Your task to perform on an android device: turn on sleep mode Image 0: 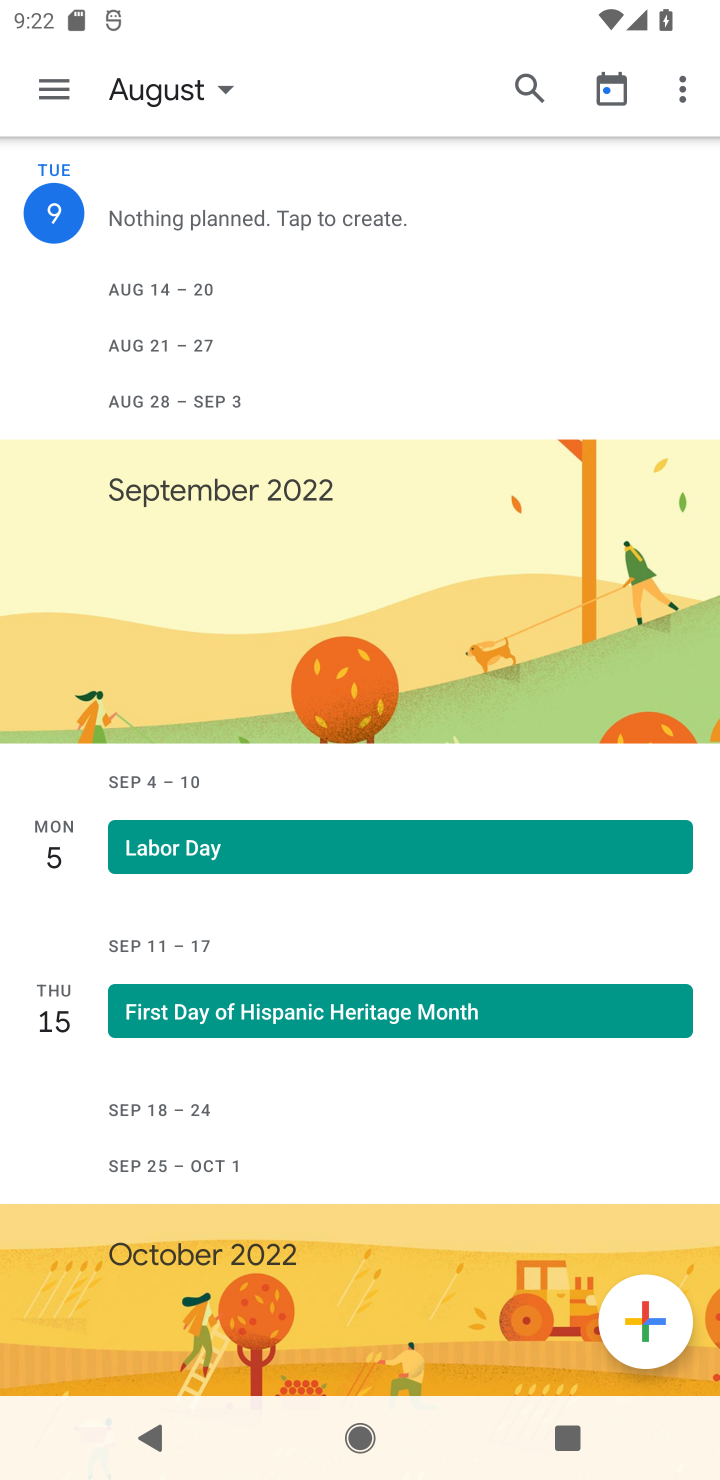
Step 0: press home button
Your task to perform on an android device: turn on sleep mode Image 1: 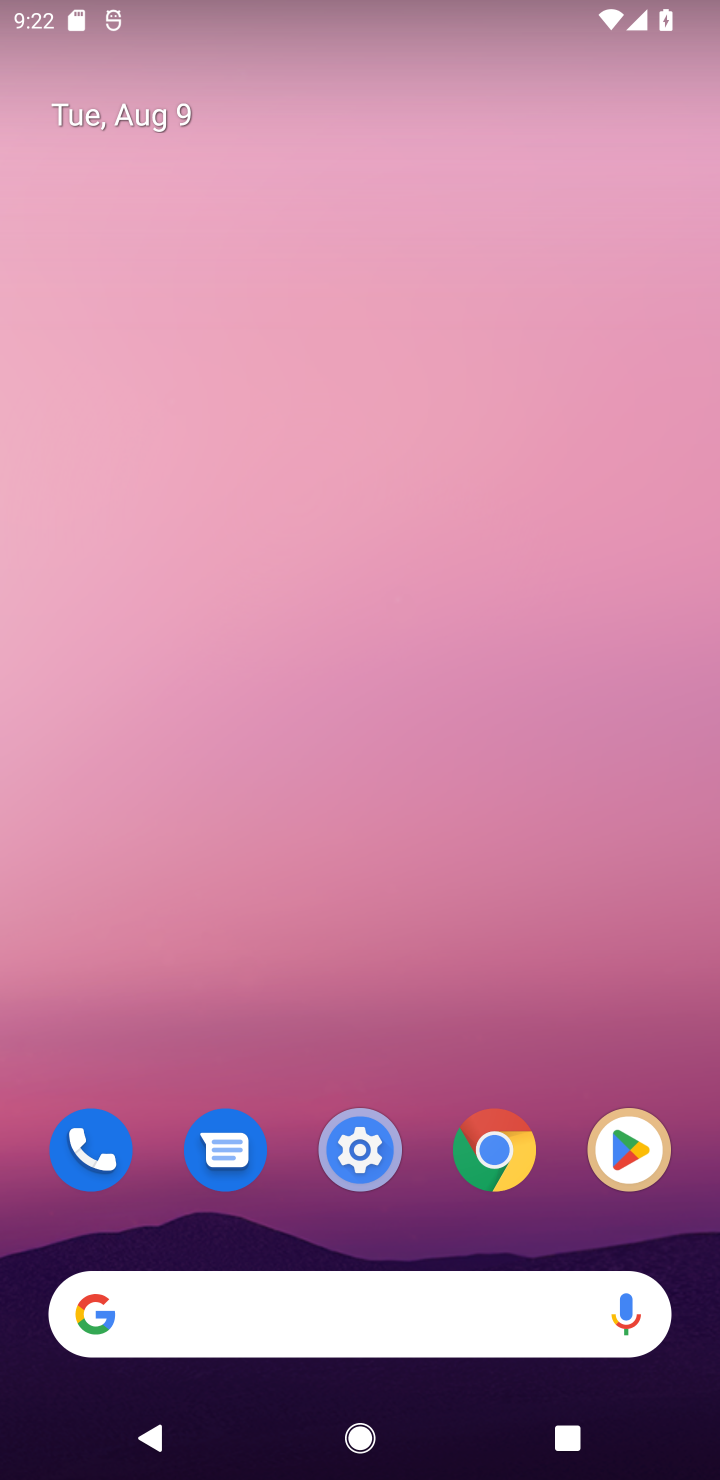
Step 1: drag from (527, 1074) to (465, 364)
Your task to perform on an android device: turn on sleep mode Image 2: 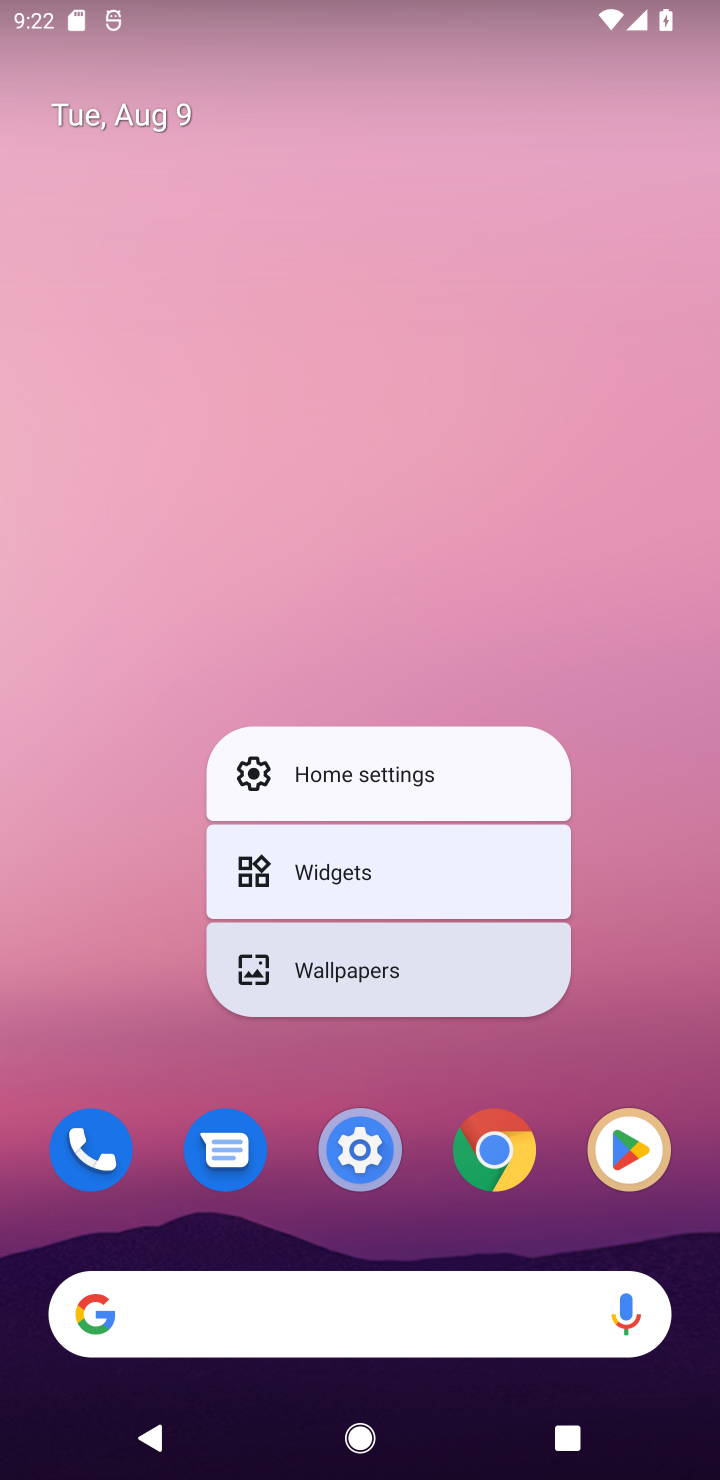
Step 2: click (705, 783)
Your task to perform on an android device: turn on sleep mode Image 3: 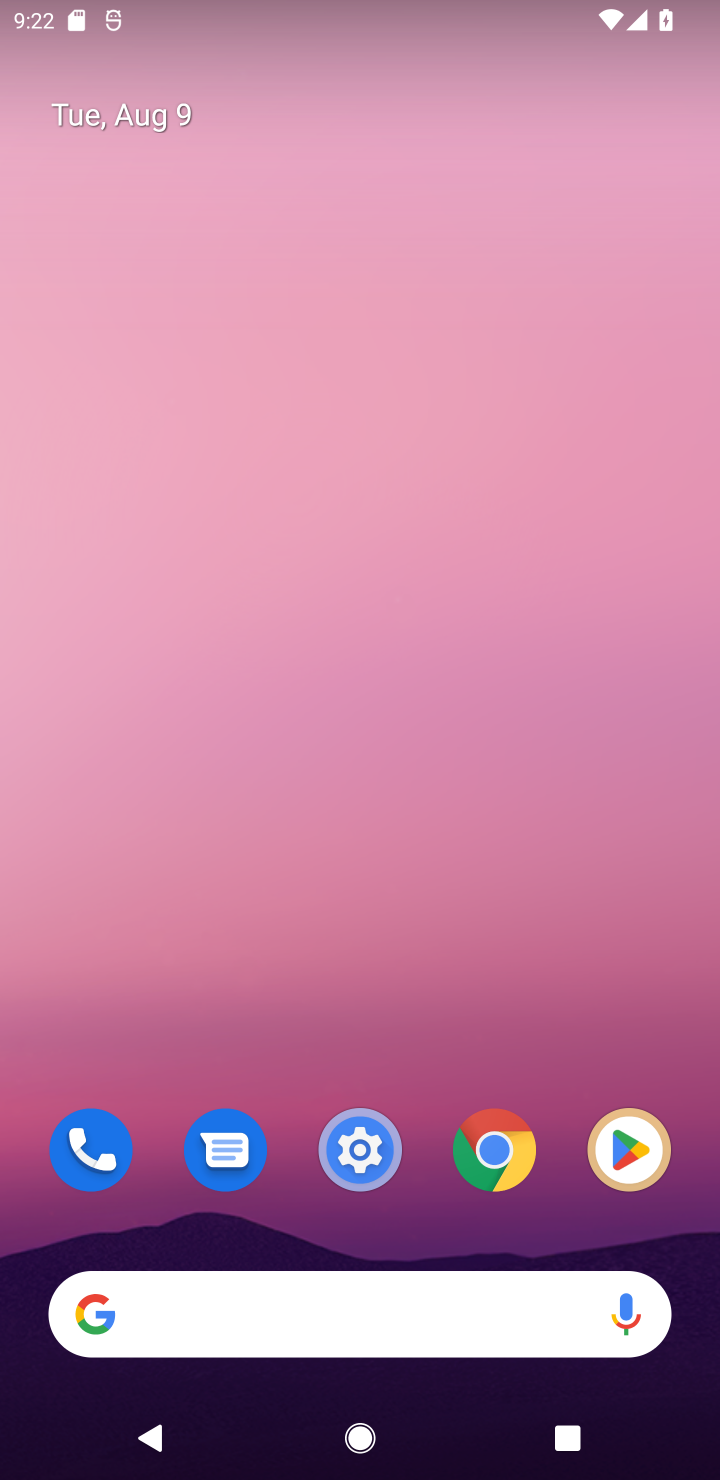
Step 3: drag from (591, 1057) to (543, 247)
Your task to perform on an android device: turn on sleep mode Image 4: 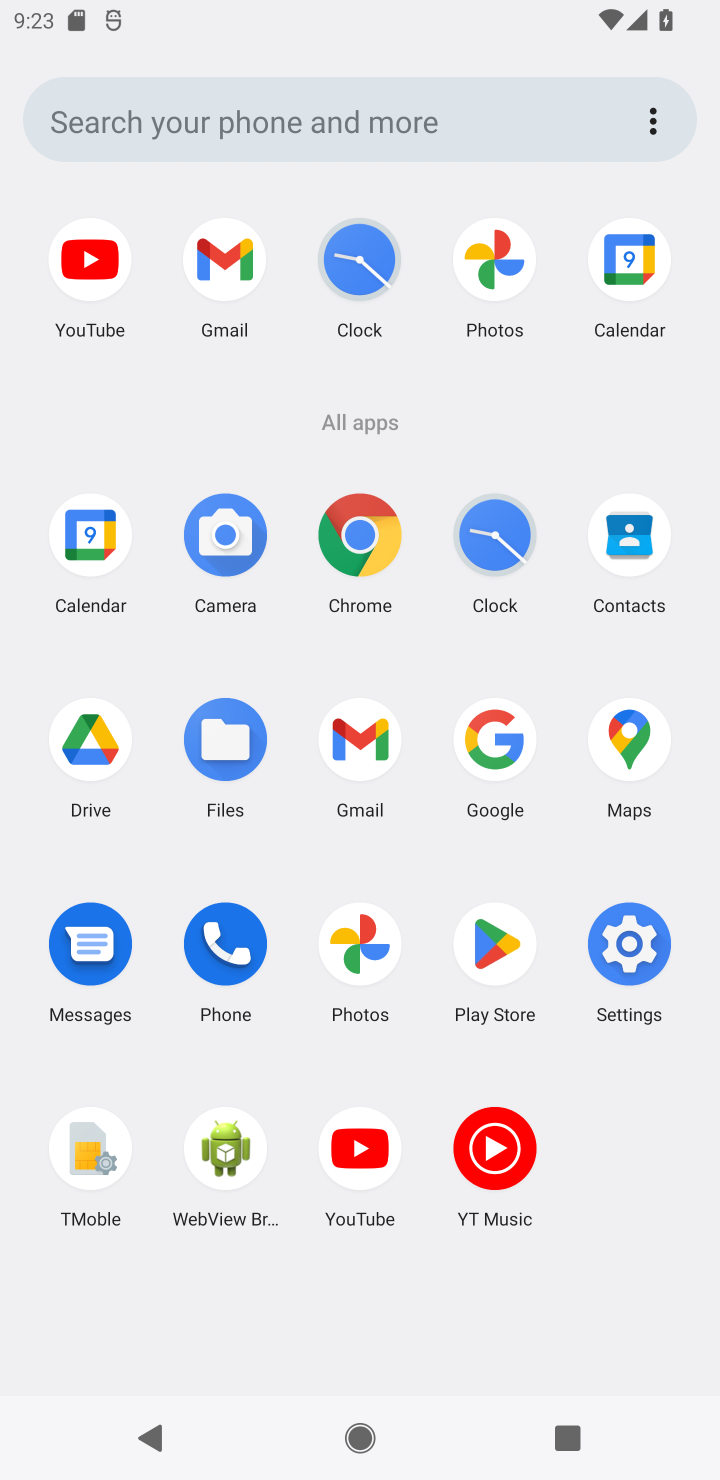
Step 4: click (641, 966)
Your task to perform on an android device: turn on sleep mode Image 5: 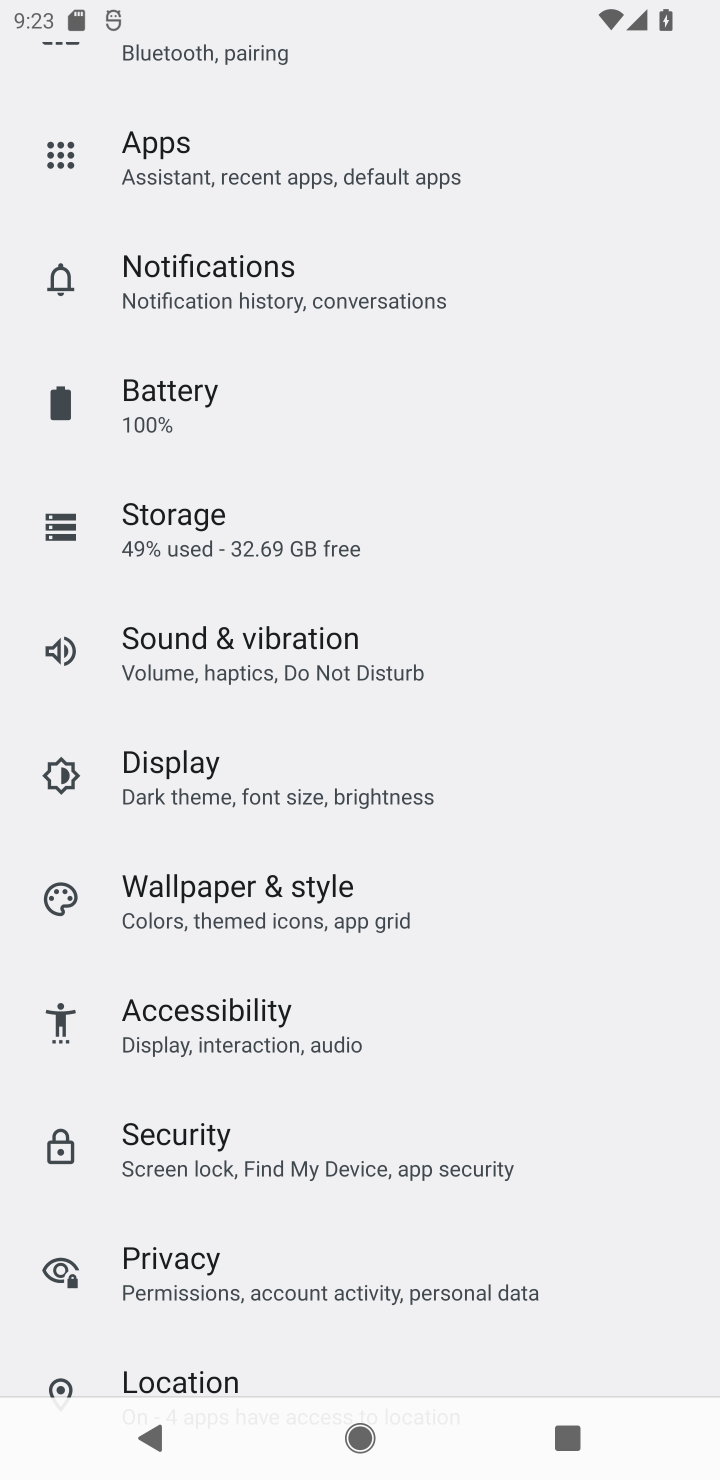
Step 5: click (260, 783)
Your task to perform on an android device: turn on sleep mode Image 6: 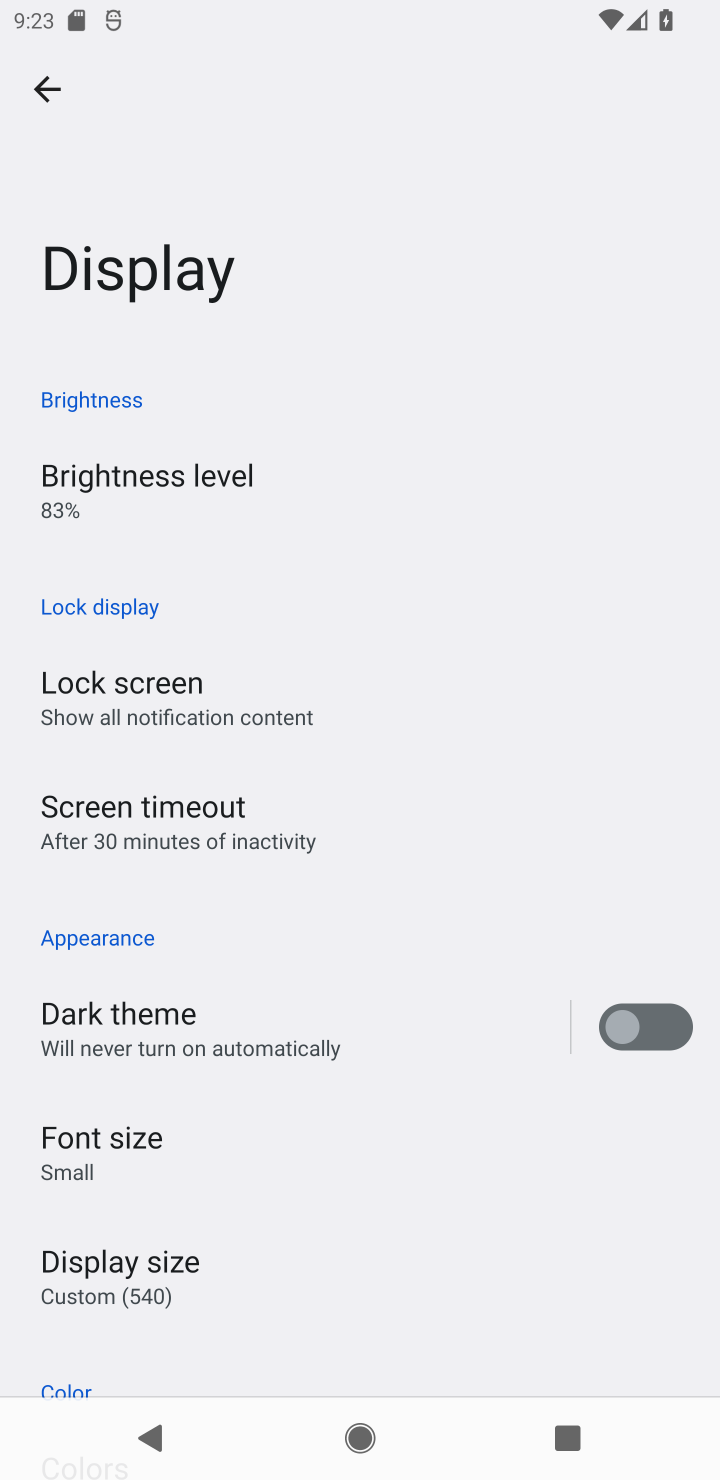
Step 6: task complete